Your task to perform on an android device: change alarm snooze length Image 0: 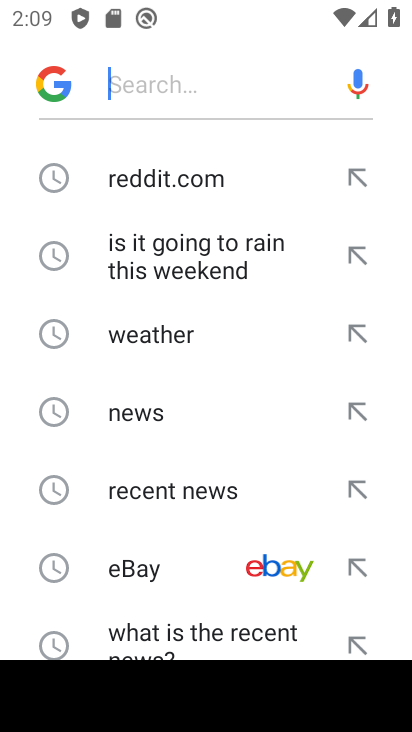
Step 0: press back button
Your task to perform on an android device: change alarm snooze length Image 1: 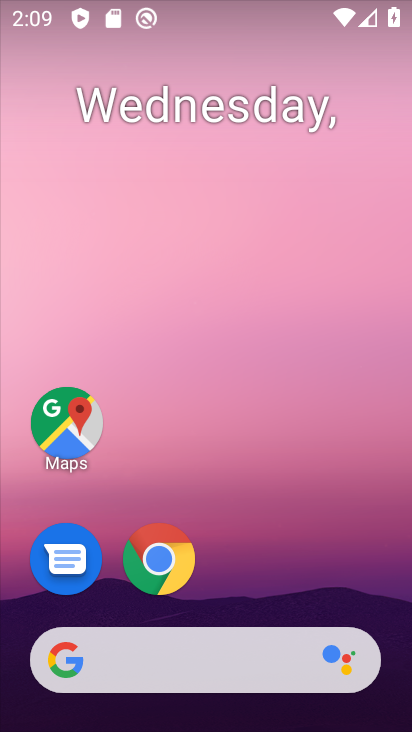
Step 1: drag from (247, 537) to (250, 4)
Your task to perform on an android device: change alarm snooze length Image 2: 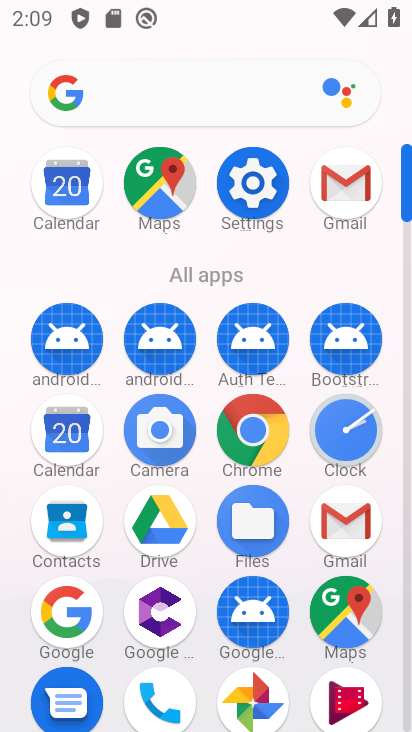
Step 2: click (349, 453)
Your task to perform on an android device: change alarm snooze length Image 3: 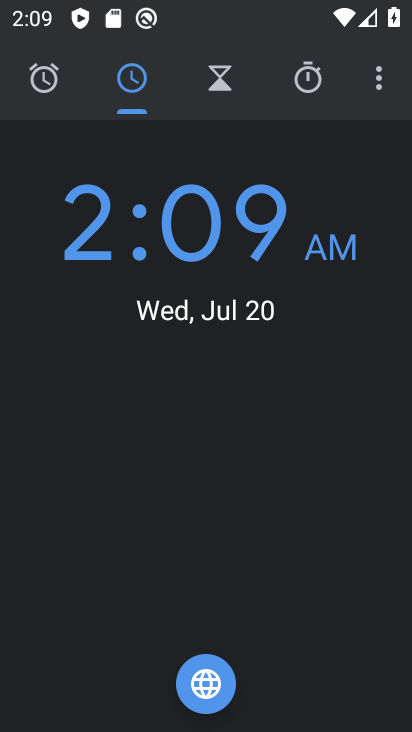
Step 3: click (373, 72)
Your task to perform on an android device: change alarm snooze length Image 4: 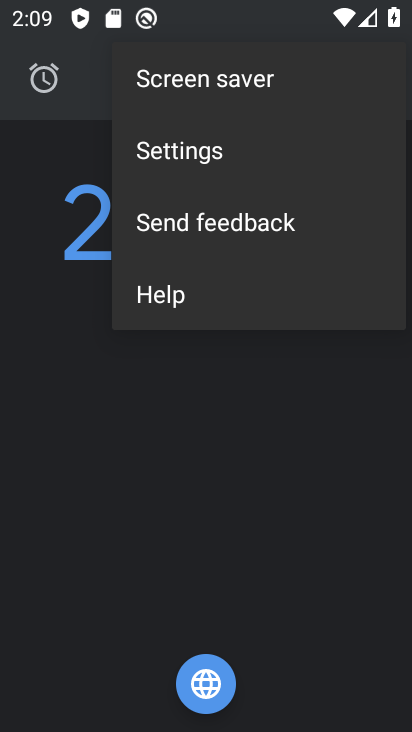
Step 4: click (247, 148)
Your task to perform on an android device: change alarm snooze length Image 5: 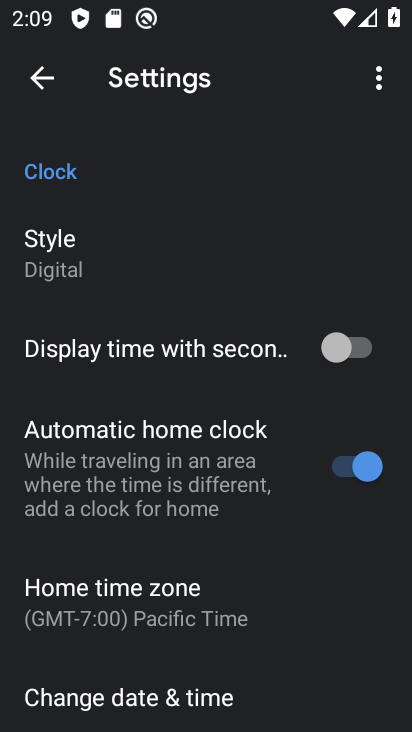
Step 5: drag from (327, 685) to (295, 203)
Your task to perform on an android device: change alarm snooze length Image 6: 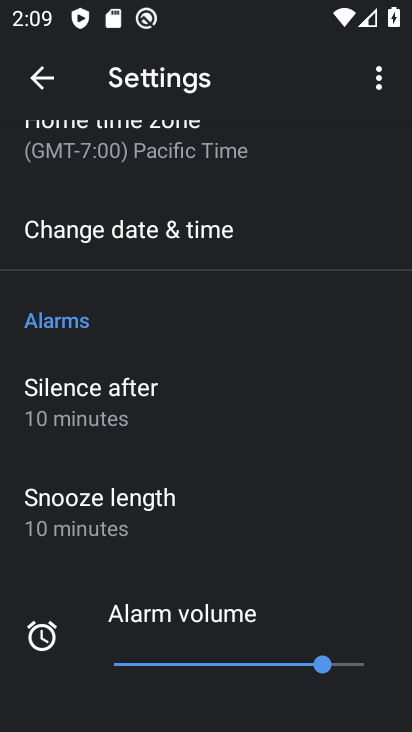
Step 6: click (148, 516)
Your task to perform on an android device: change alarm snooze length Image 7: 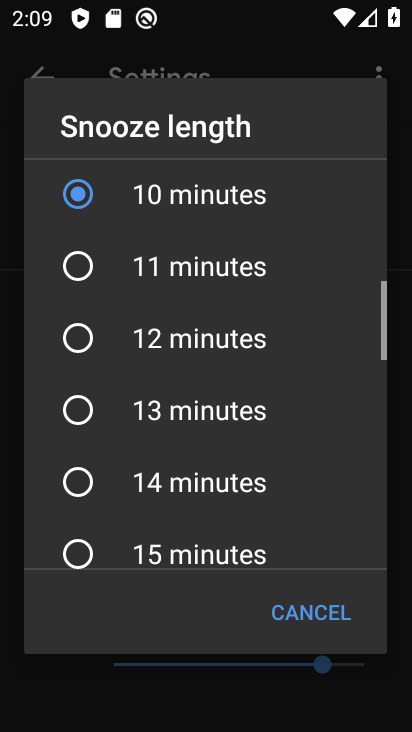
Step 7: click (84, 274)
Your task to perform on an android device: change alarm snooze length Image 8: 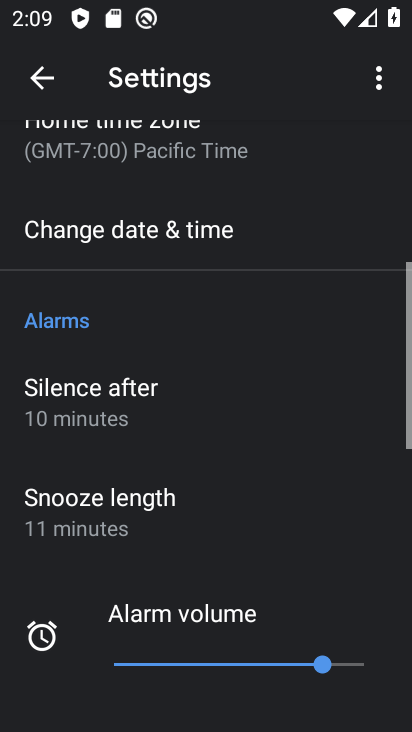
Step 8: task complete